Your task to perform on an android device: Open maps Image 0: 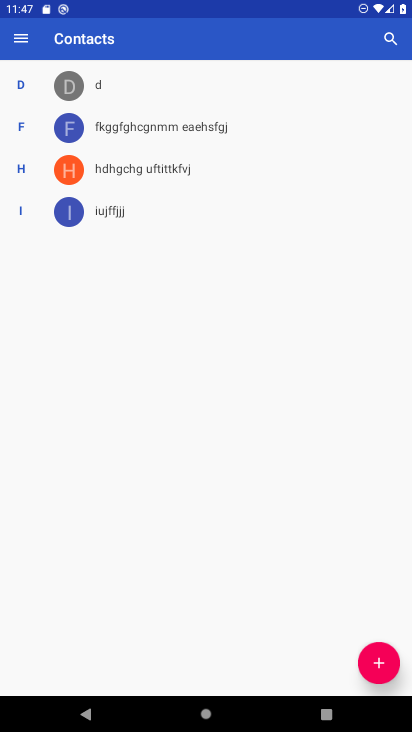
Step 0: press home button
Your task to perform on an android device: Open maps Image 1: 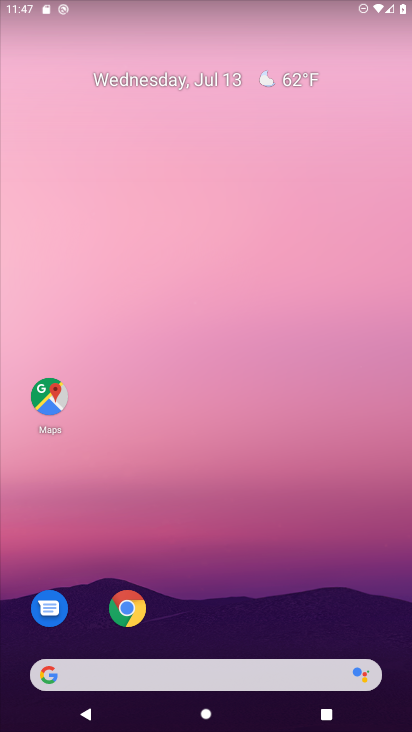
Step 1: drag from (252, 729) to (245, 117)
Your task to perform on an android device: Open maps Image 2: 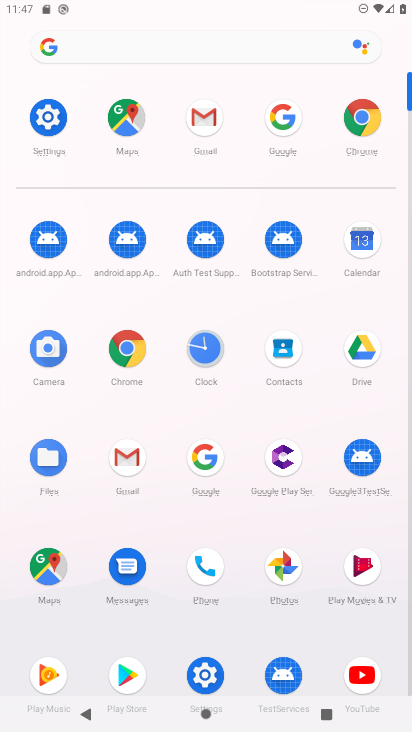
Step 2: click (48, 568)
Your task to perform on an android device: Open maps Image 3: 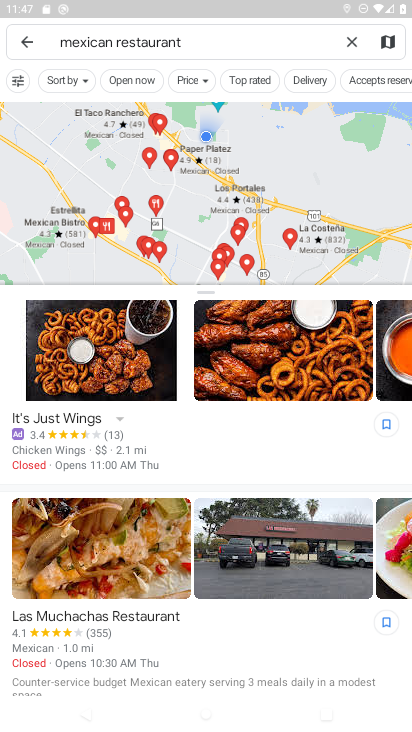
Step 3: task complete